Your task to perform on an android device: set the timer Image 0: 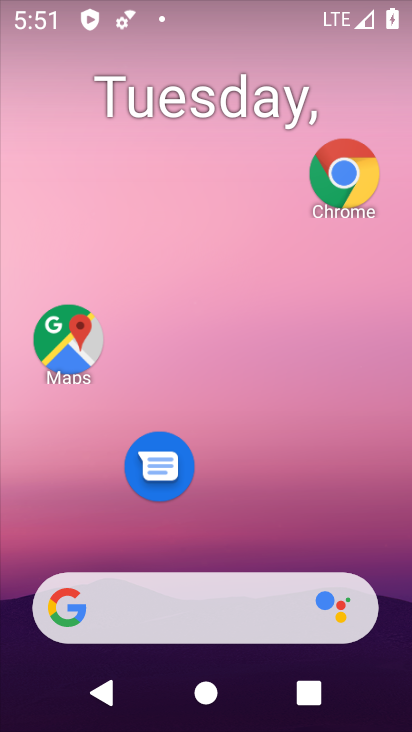
Step 0: press home button
Your task to perform on an android device: set the timer Image 1: 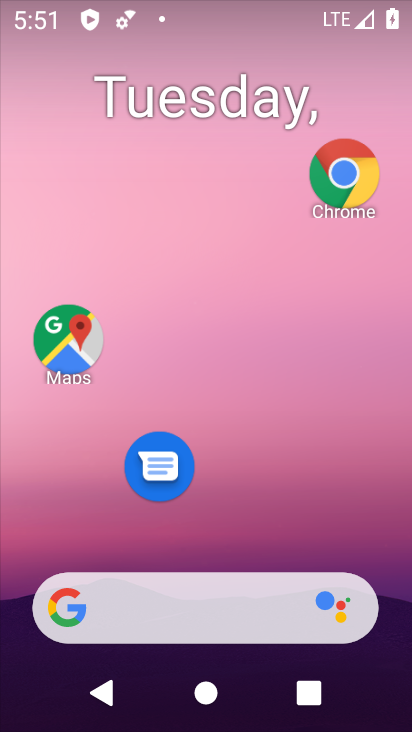
Step 1: drag from (305, 451) to (293, 58)
Your task to perform on an android device: set the timer Image 2: 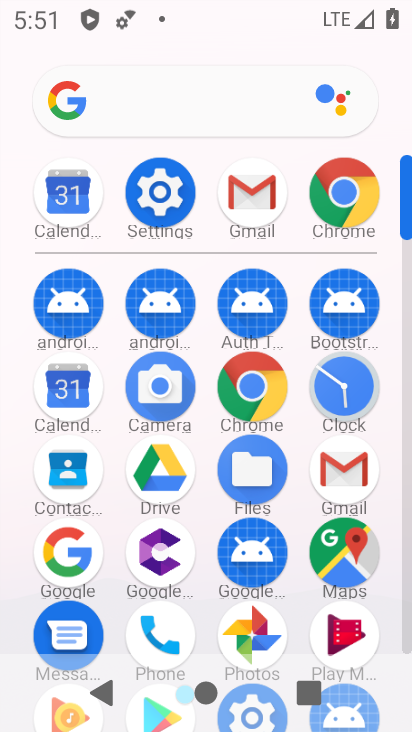
Step 2: click (345, 408)
Your task to perform on an android device: set the timer Image 3: 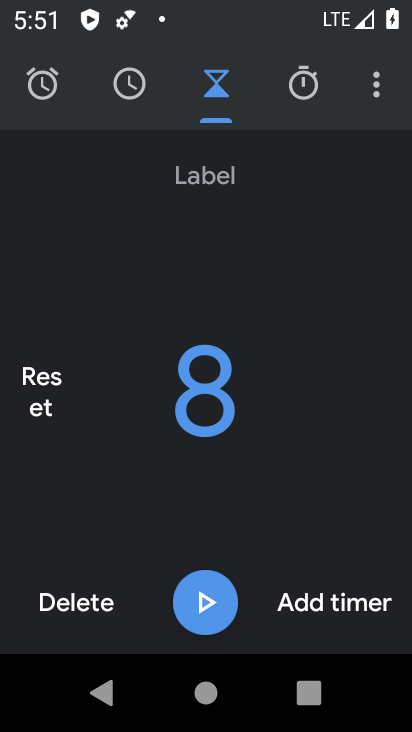
Step 3: click (287, 604)
Your task to perform on an android device: set the timer Image 4: 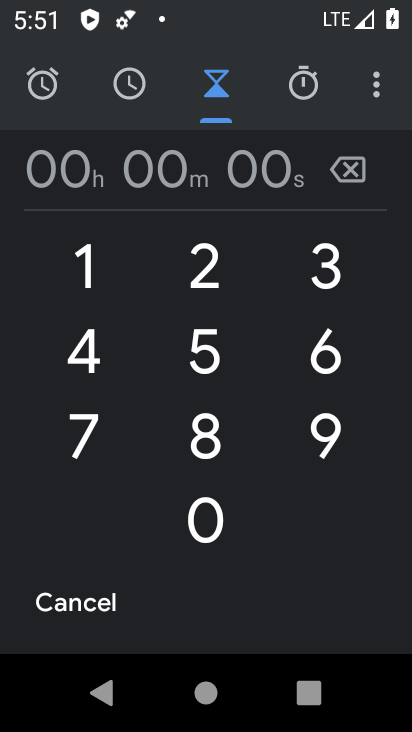
Step 4: click (77, 456)
Your task to perform on an android device: set the timer Image 5: 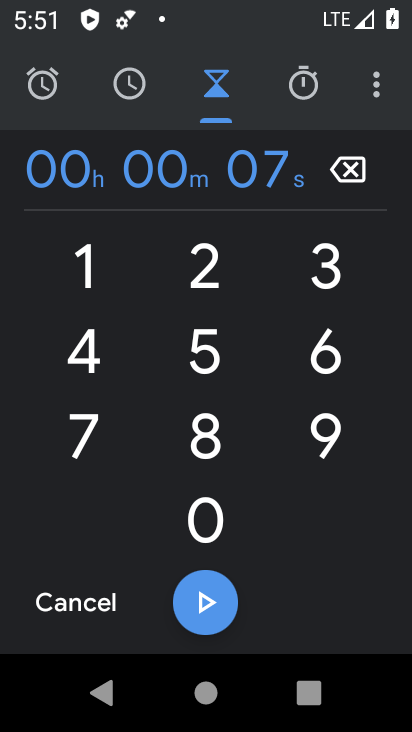
Step 5: click (224, 601)
Your task to perform on an android device: set the timer Image 6: 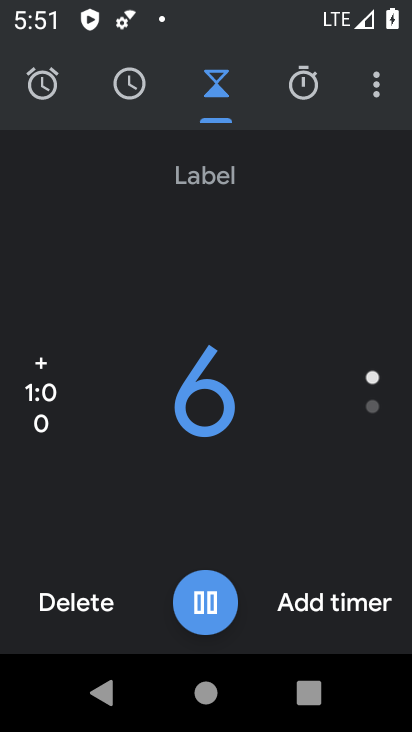
Step 6: task complete